Your task to perform on an android device: add a contact in the contacts app Image 0: 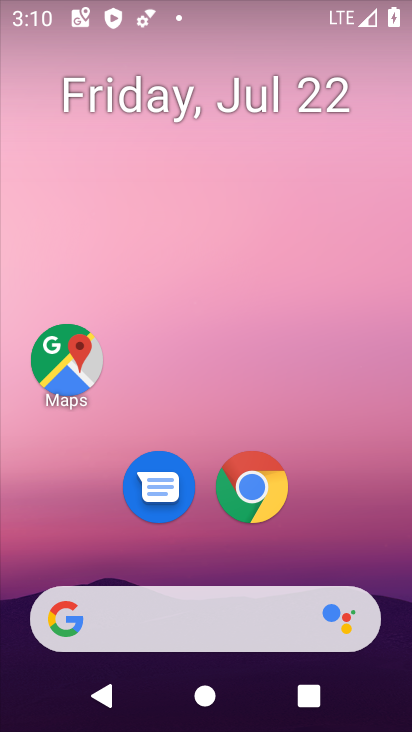
Step 0: drag from (184, 435) to (233, 8)
Your task to perform on an android device: add a contact in the contacts app Image 1: 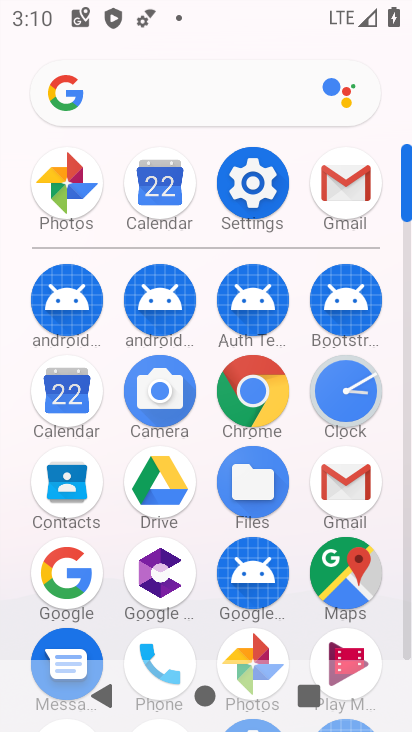
Step 1: click (70, 516)
Your task to perform on an android device: add a contact in the contacts app Image 2: 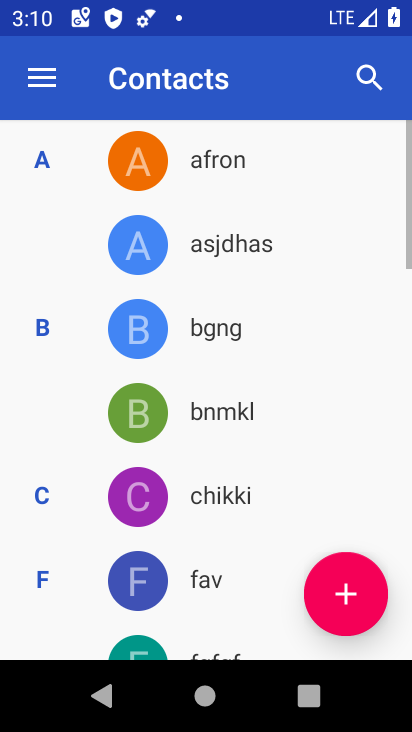
Step 2: click (348, 584)
Your task to perform on an android device: add a contact in the contacts app Image 3: 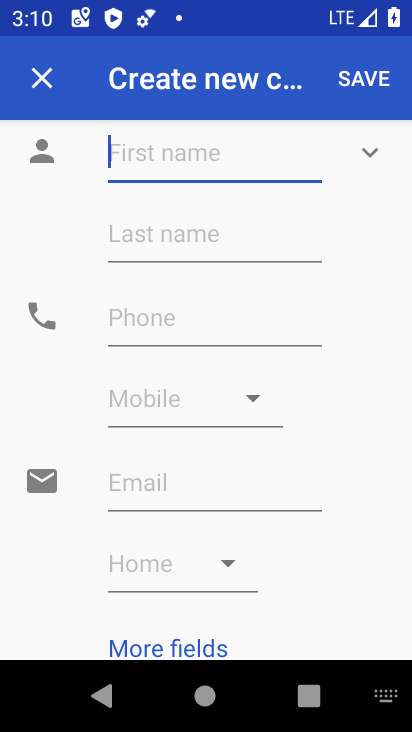
Step 3: click (157, 154)
Your task to perform on an android device: add a contact in the contacts app Image 4: 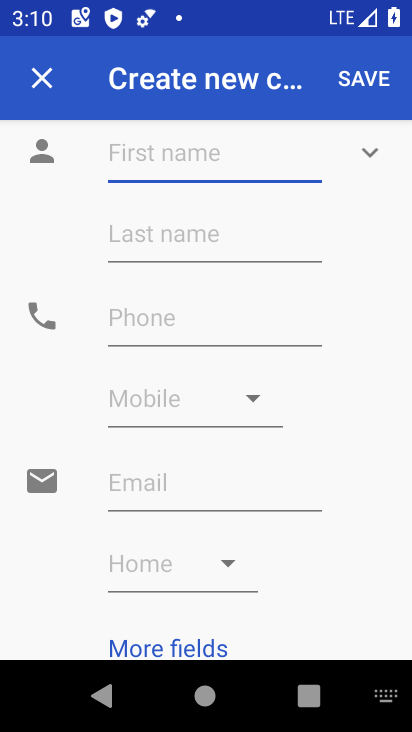
Step 4: type "bgd"
Your task to perform on an android device: add a contact in the contacts app Image 5: 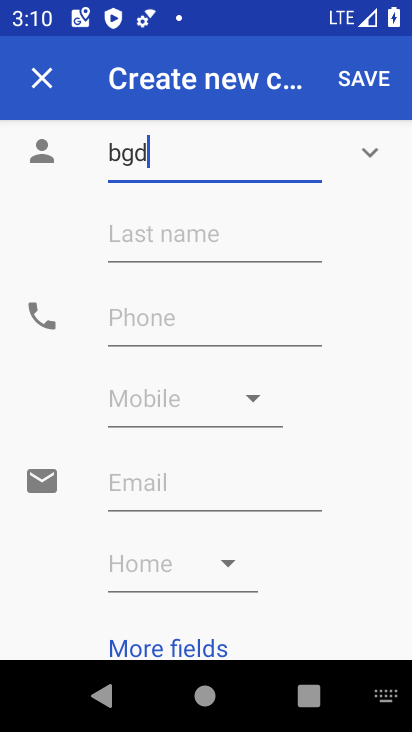
Step 5: click (140, 335)
Your task to perform on an android device: add a contact in the contacts app Image 6: 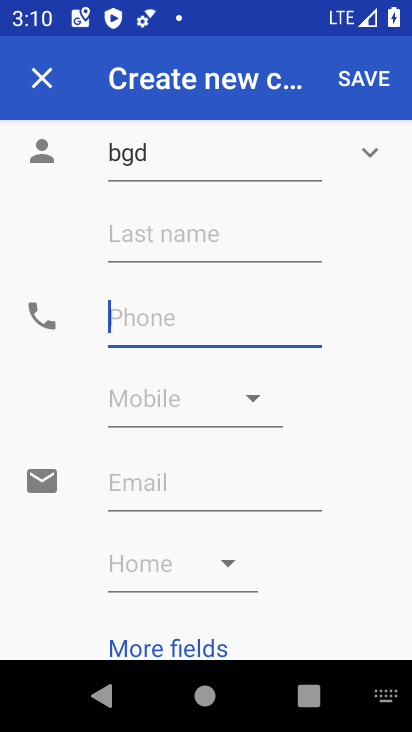
Step 6: type "765756"
Your task to perform on an android device: add a contact in the contacts app Image 7: 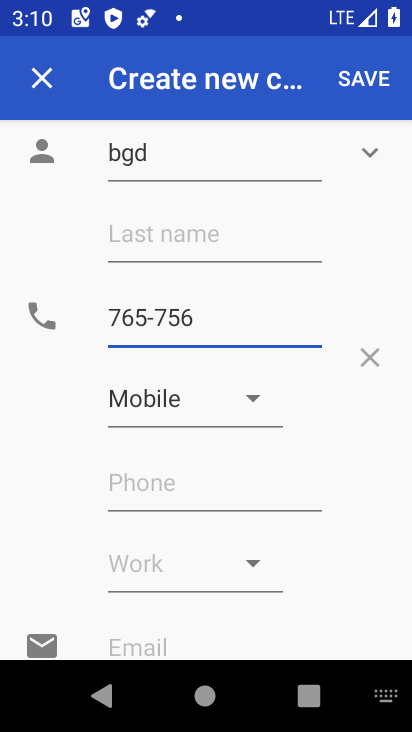
Step 7: click (364, 80)
Your task to perform on an android device: add a contact in the contacts app Image 8: 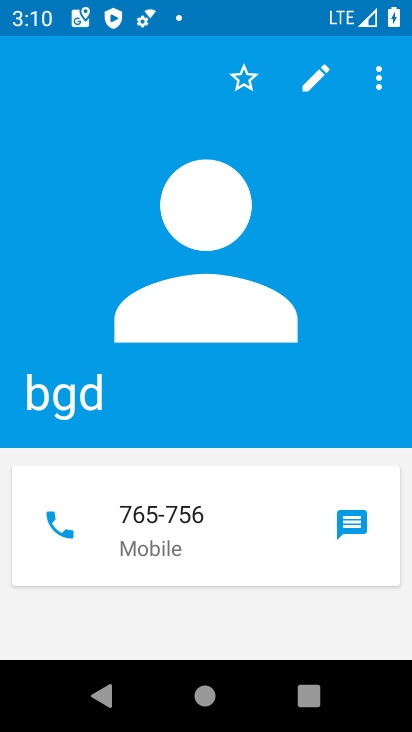
Step 8: task complete